Your task to perform on an android device: empty trash in the gmail app Image 0: 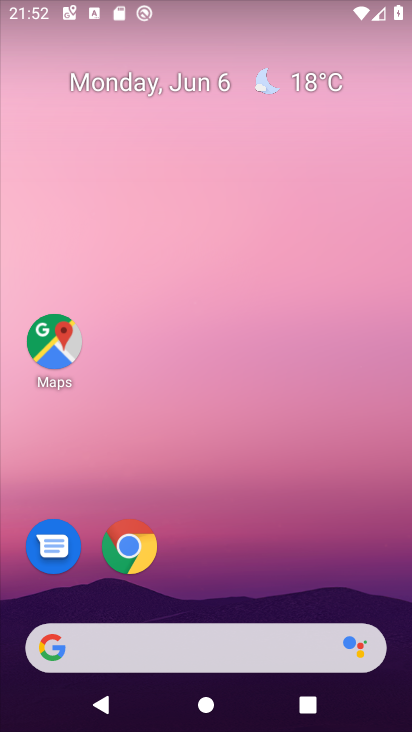
Step 0: drag from (393, 610) to (334, 171)
Your task to perform on an android device: empty trash in the gmail app Image 1: 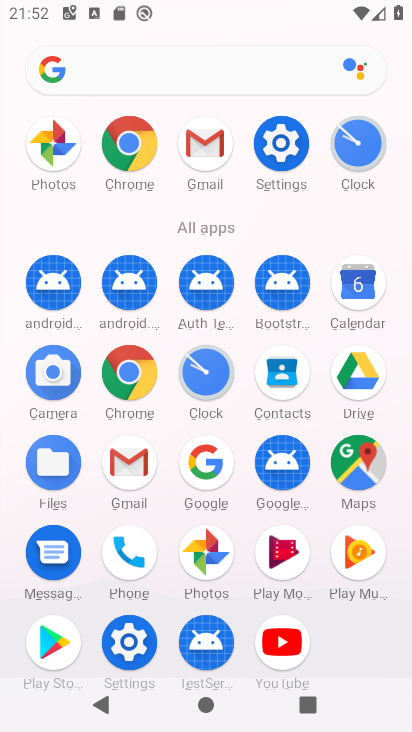
Step 1: click (127, 463)
Your task to perform on an android device: empty trash in the gmail app Image 2: 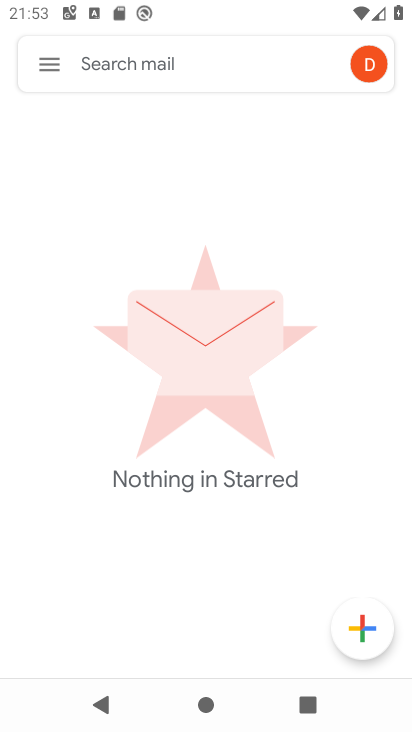
Step 2: click (40, 56)
Your task to perform on an android device: empty trash in the gmail app Image 3: 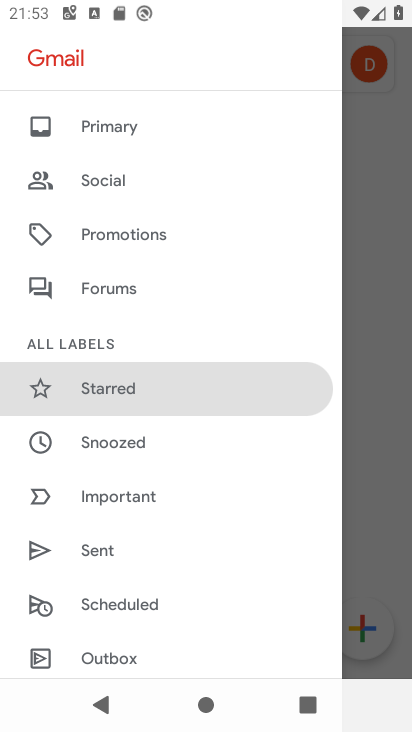
Step 3: drag from (171, 620) to (215, 135)
Your task to perform on an android device: empty trash in the gmail app Image 4: 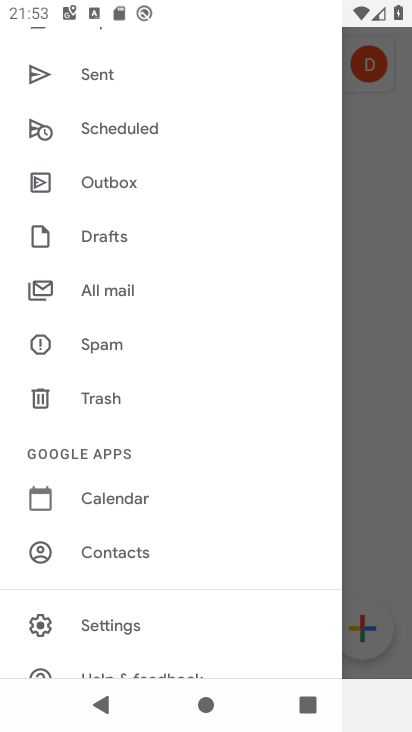
Step 4: click (97, 396)
Your task to perform on an android device: empty trash in the gmail app Image 5: 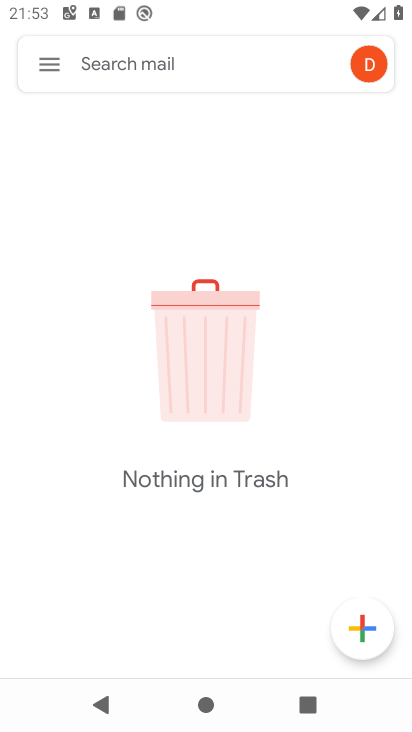
Step 5: task complete